Your task to perform on an android device: When is my next appointment? Image 0: 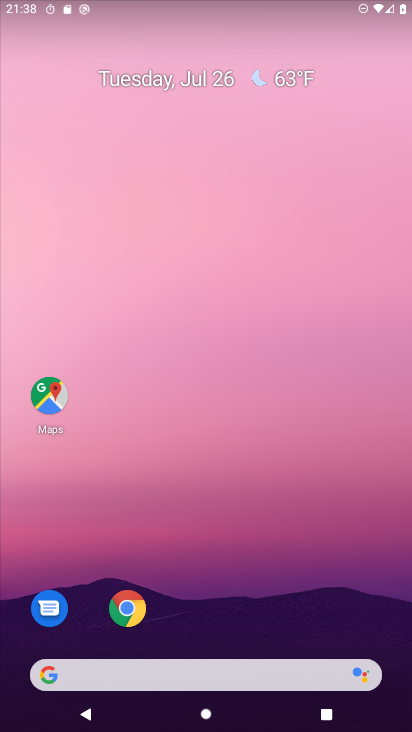
Step 0: drag from (48, 655) to (219, 126)
Your task to perform on an android device: When is my next appointment? Image 1: 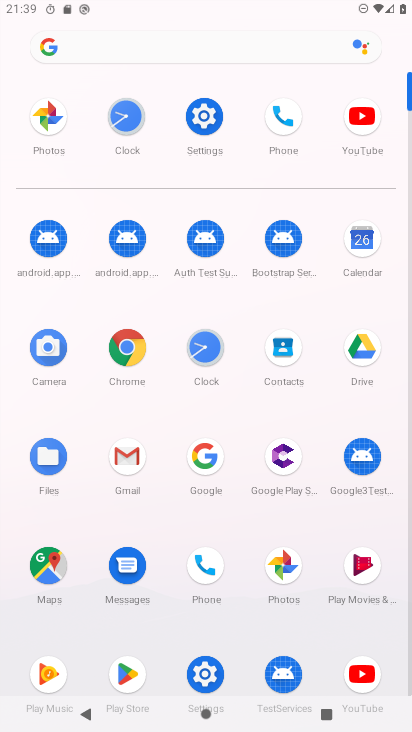
Step 1: click (362, 243)
Your task to perform on an android device: When is my next appointment? Image 2: 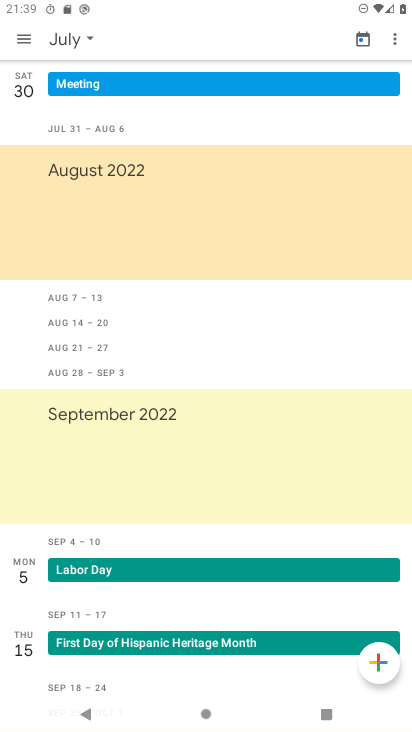
Step 2: task complete